Your task to perform on an android device: Check the weather Image 0: 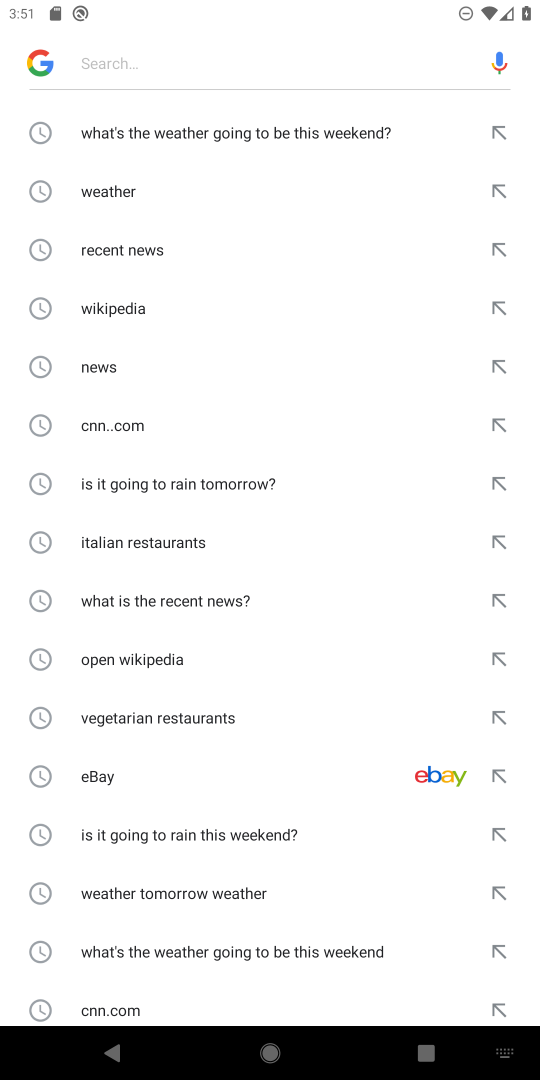
Step 0: click (111, 66)
Your task to perform on an android device: Check the weather Image 1: 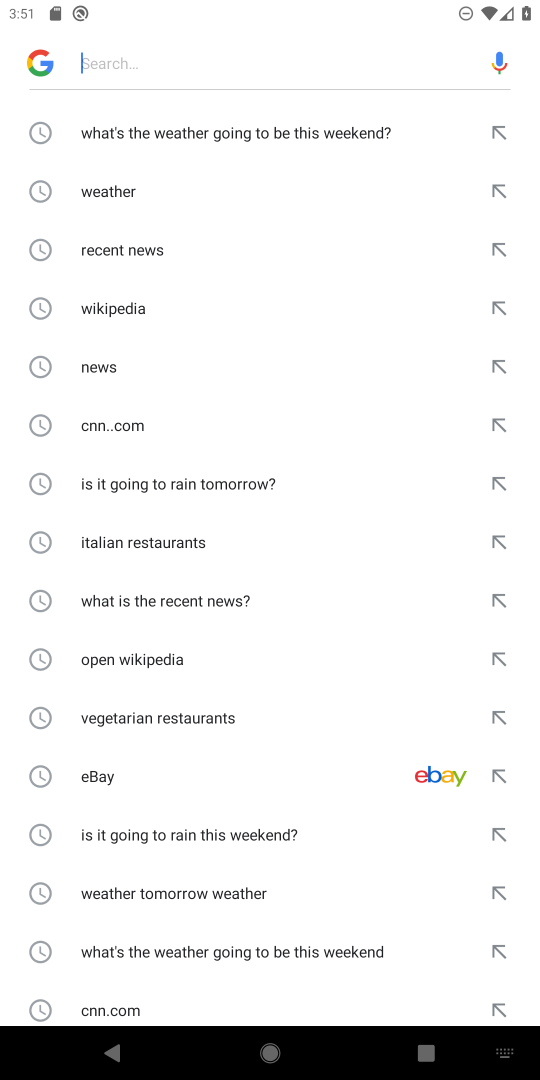
Step 1: type " Check the weather"
Your task to perform on an android device: Check the weather Image 2: 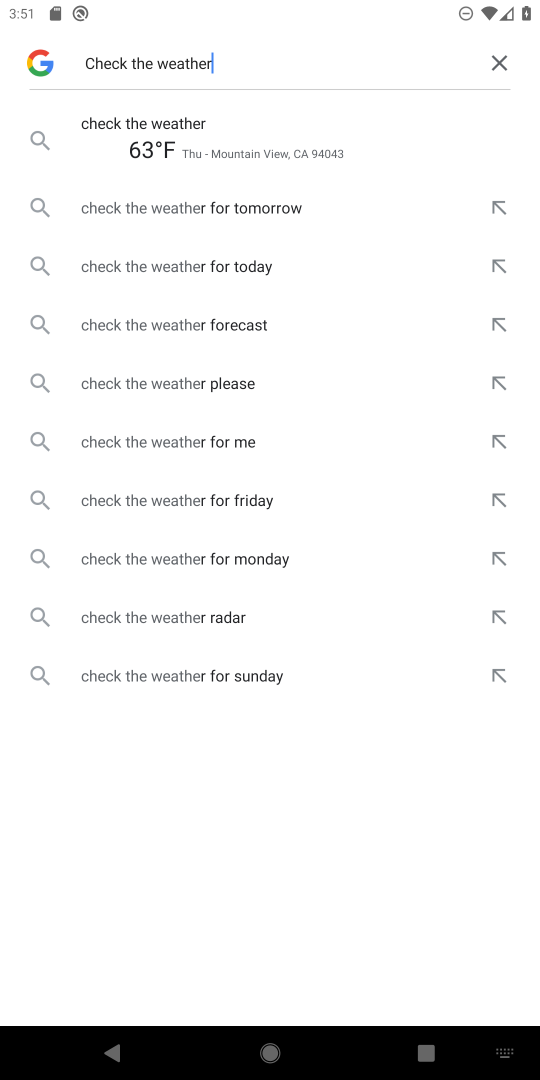
Step 2: press enter
Your task to perform on an android device: Check the weather Image 3: 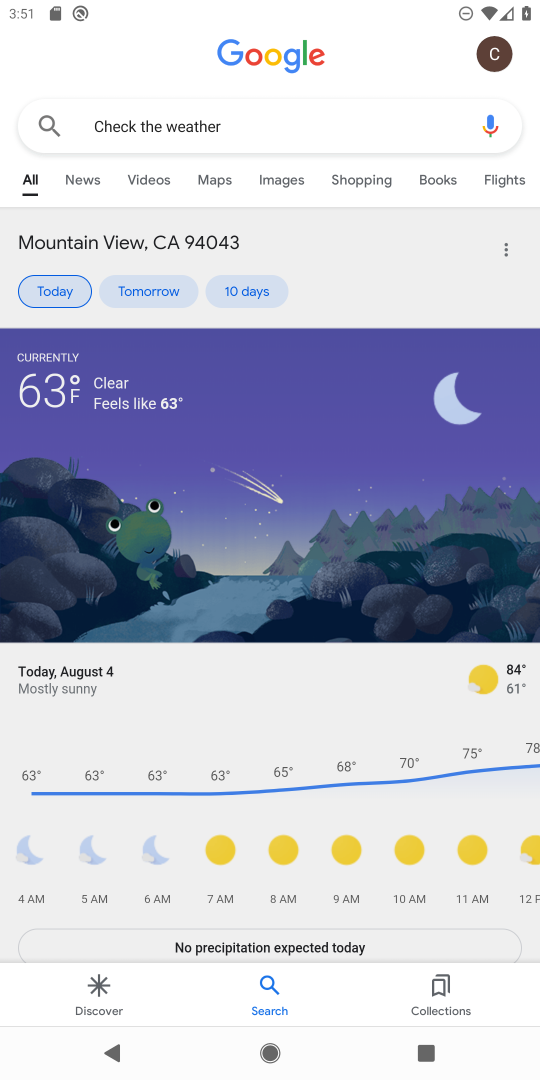
Step 3: task complete